Your task to perform on an android device: Go to Wikipedia Image 0: 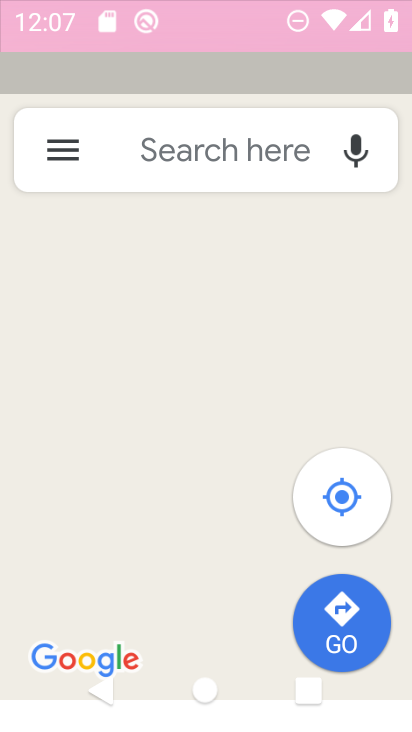
Step 0: drag from (394, 606) to (268, 73)
Your task to perform on an android device: Go to Wikipedia Image 1: 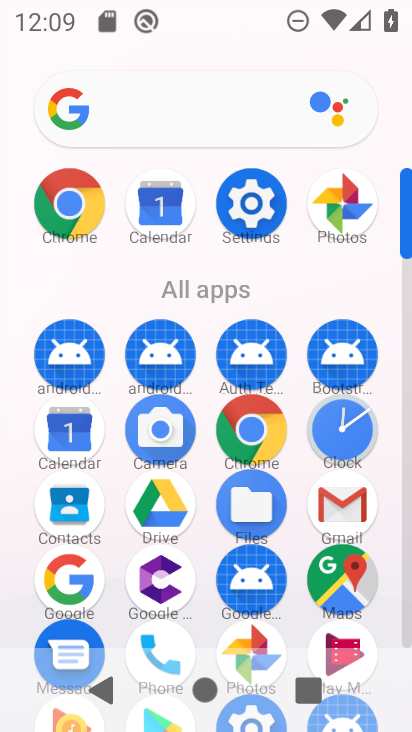
Step 1: click (67, 598)
Your task to perform on an android device: Go to Wikipedia Image 2: 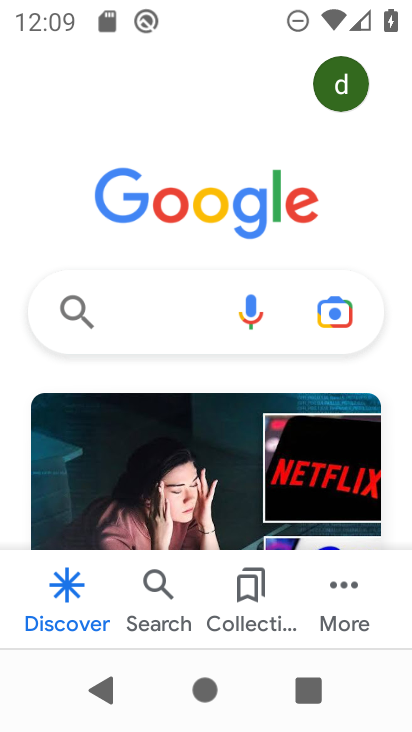
Step 2: click (154, 338)
Your task to perform on an android device: Go to Wikipedia Image 3: 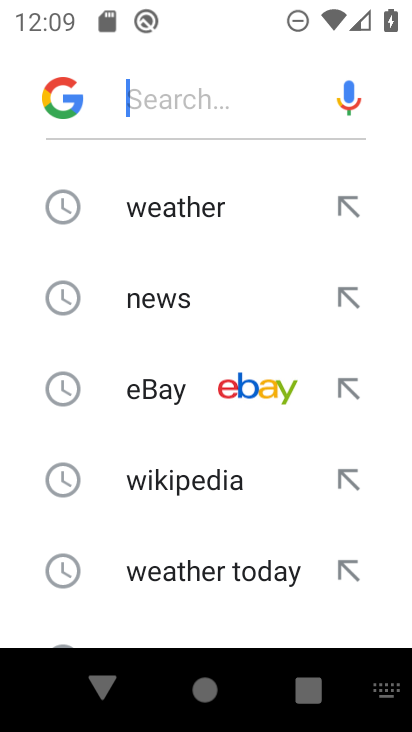
Step 3: click (186, 503)
Your task to perform on an android device: Go to Wikipedia Image 4: 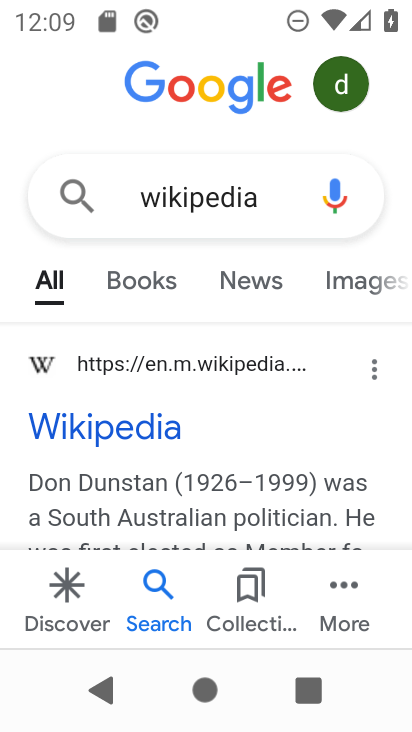
Step 4: task complete